Your task to perform on an android device: Open battery settings Image 0: 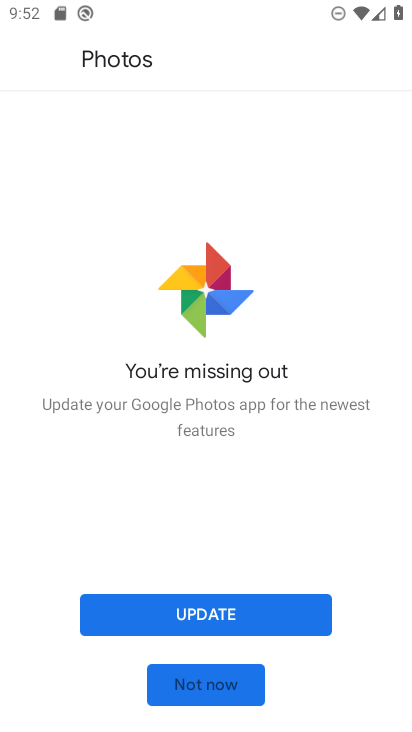
Step 0: press home button
Your task to perform on an android device: Open battery settings Image 1: 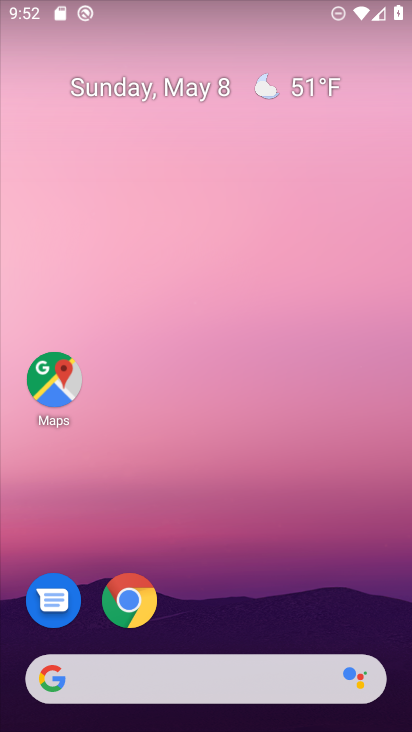
Step 1: drag from (315, 599) to (343, 3)
Your task to perform on an android device: Open battery settings Image 2: 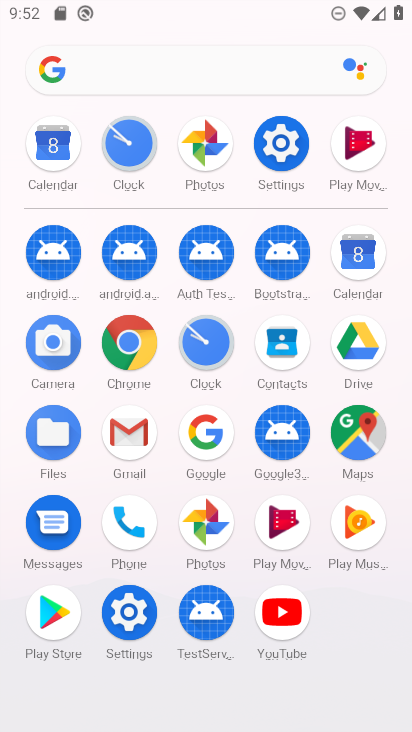
Step 2: click (270, 153)
Your task to perform on an android device: Open battery settings Image 3: 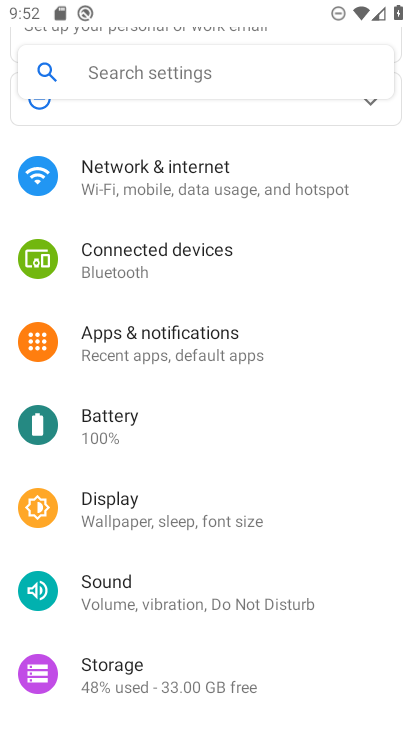
Step 3: click (116, 422)
Your task to perform on an android device: Open battery settings Image 4: 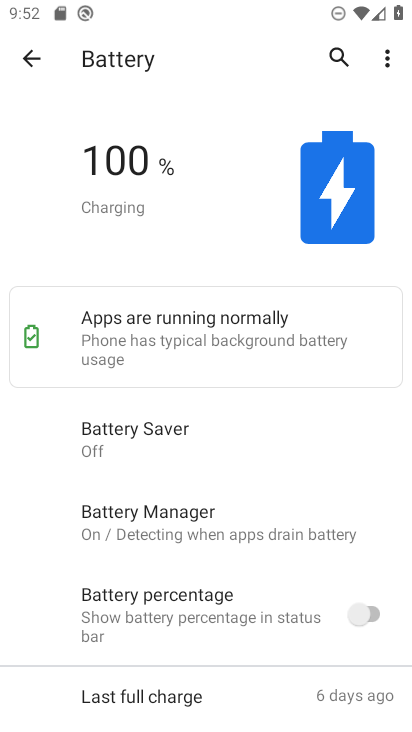
Step 4: task complete